Your task to perform on an android device: Open CNN.com Image 0: 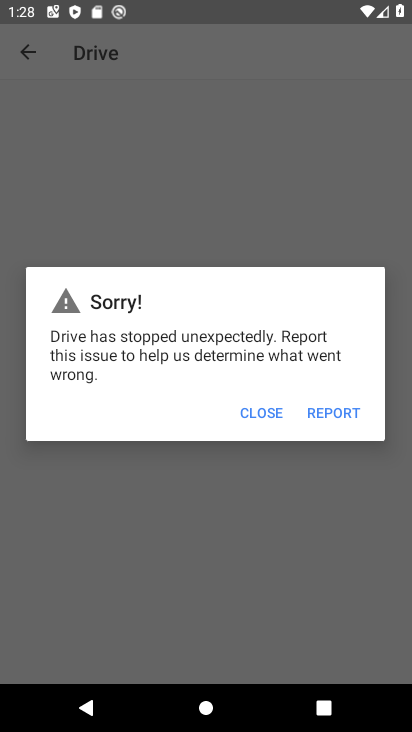
Step 0: press home button
Your task to perform on an android device: Open CNN.com Image 1: 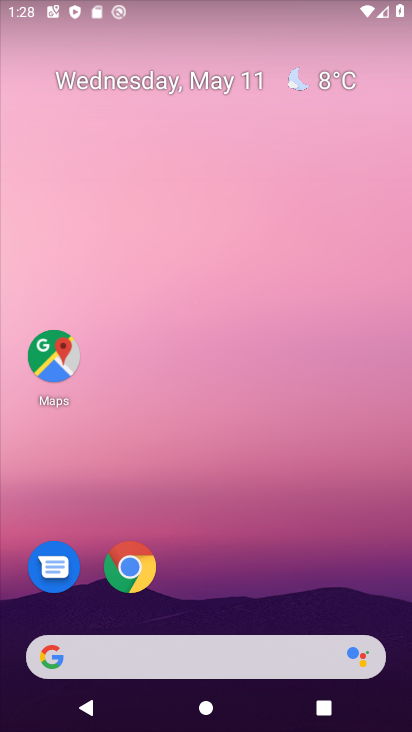
Step 1: click (146, 566)
Your task to perform on an android device: Open CNN.com Image 2: 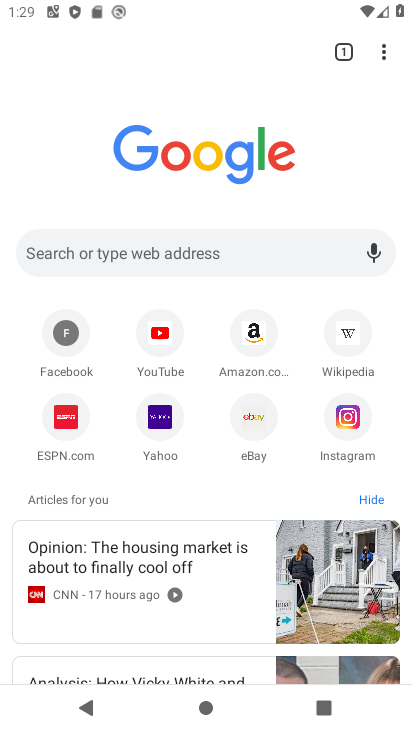
Step 2: click (214, 247)
Your task to perform on an android device: Open CNN.com Image 3: 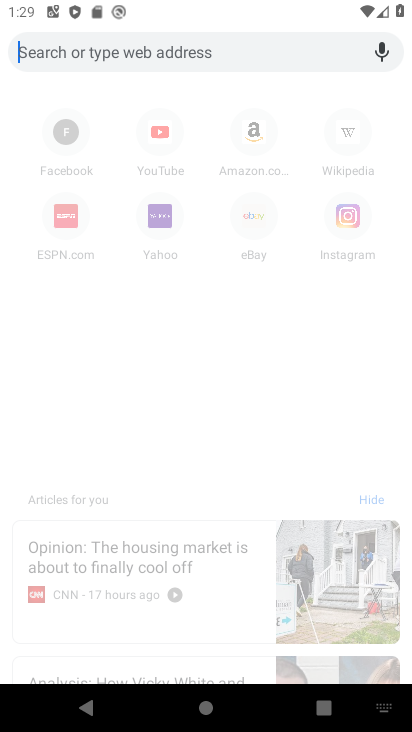
Step 3: type "cnn.com"
Your task to perform on an android device: Open CNN.com Image 4: 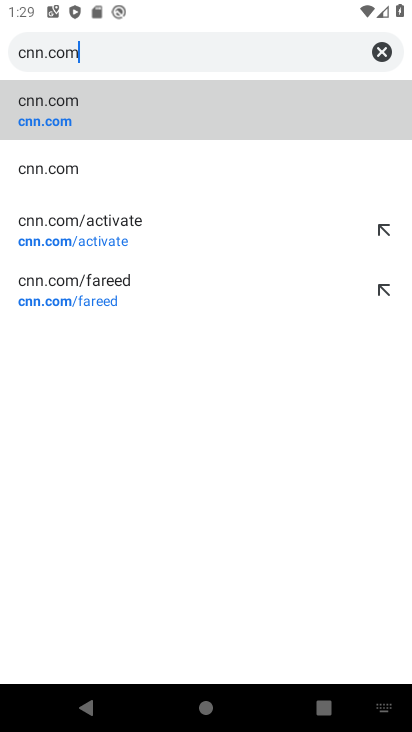
Step 4: click (99, 108)
Your task to perform on an android device: Open CNN.com Image 5: 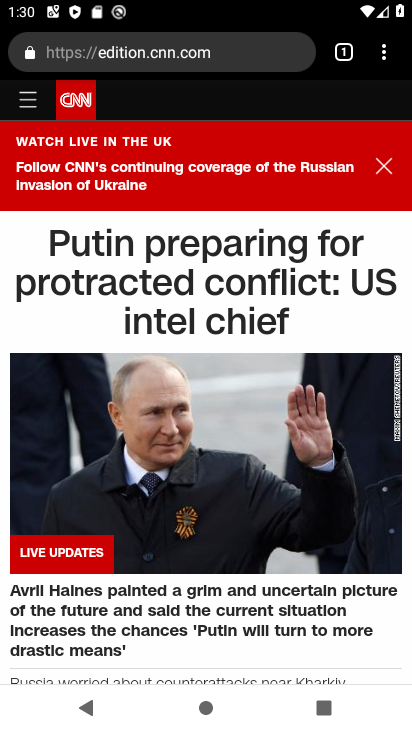
Step 5: task complete